Your task to perform on an android device: open app "Adobe Acrobat Reader: Edit PDF" (install if not already installed) Image 0: 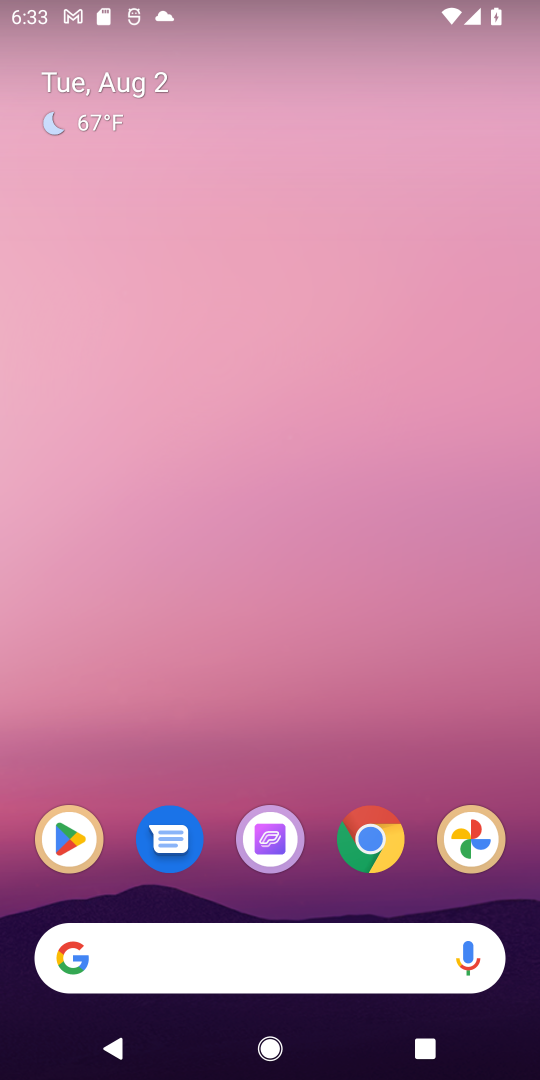
Step 0: click (61, 832)
Your task to perform on an android device: open app "Adobe Acrobat Reader: Edit PDF" (install if not already installed) Image 1: 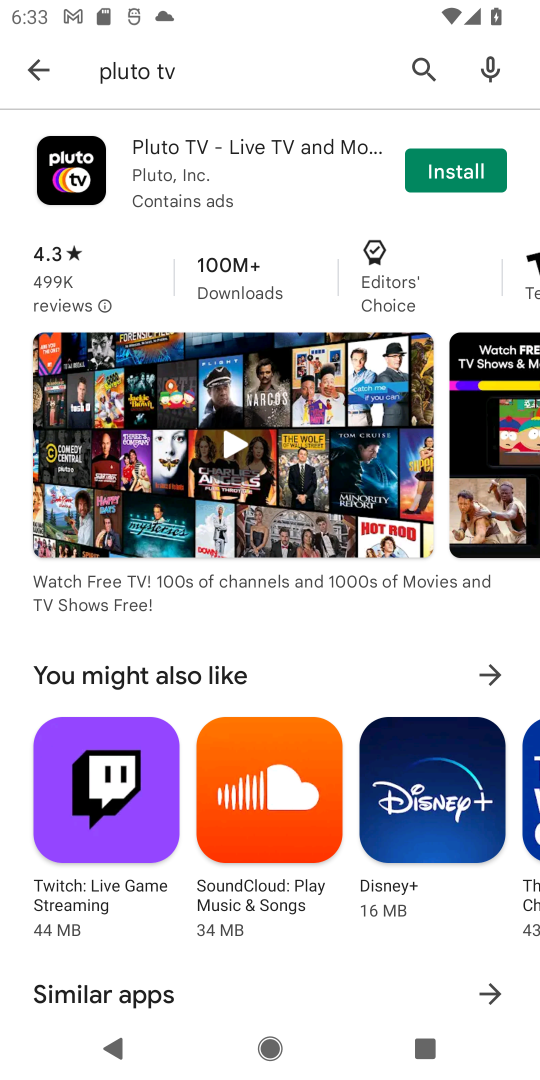
Step 1: click (202, 78)
Your task to perform on an android device: open app "Adobe Acrobat Reader: Edit PDF" (install if not already installed) Image 2: 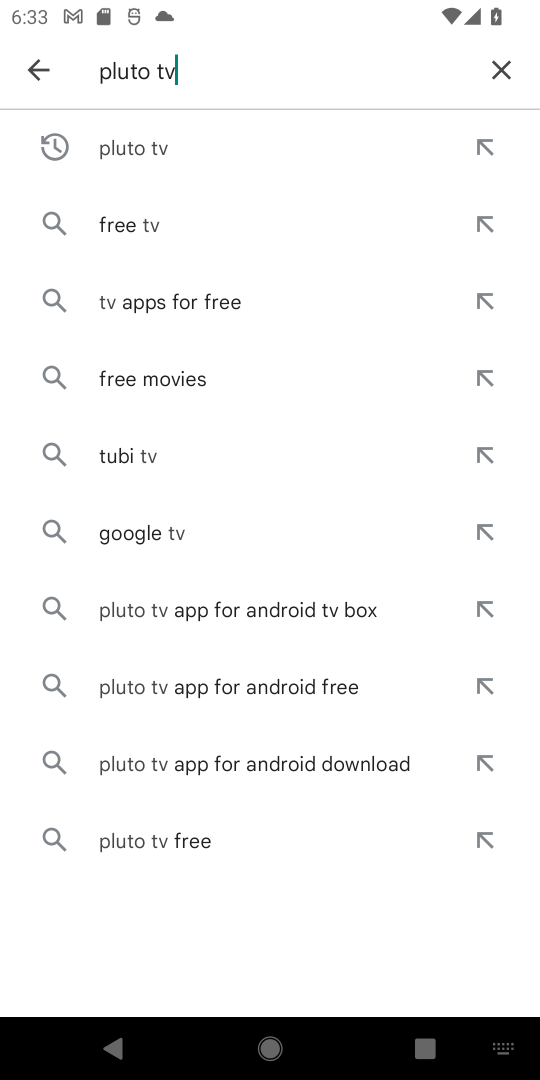
Step 2: click (502, 70)
Your task to perform on an android device: open app "Adobe Acrobat Reader: Edit PDF" (install if not already installed) Image 3: 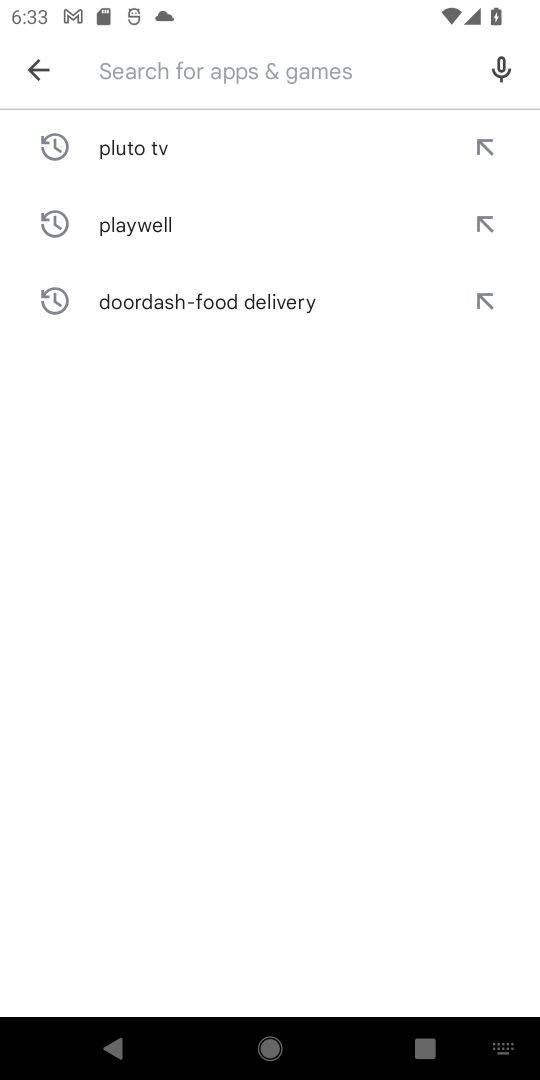
Step 3: type "Adobe Acrobar reader"
Your task to perform on an android device: open app "Adobe Acrobat Reader: Edit PDF" (install if not already installed) Image 4: 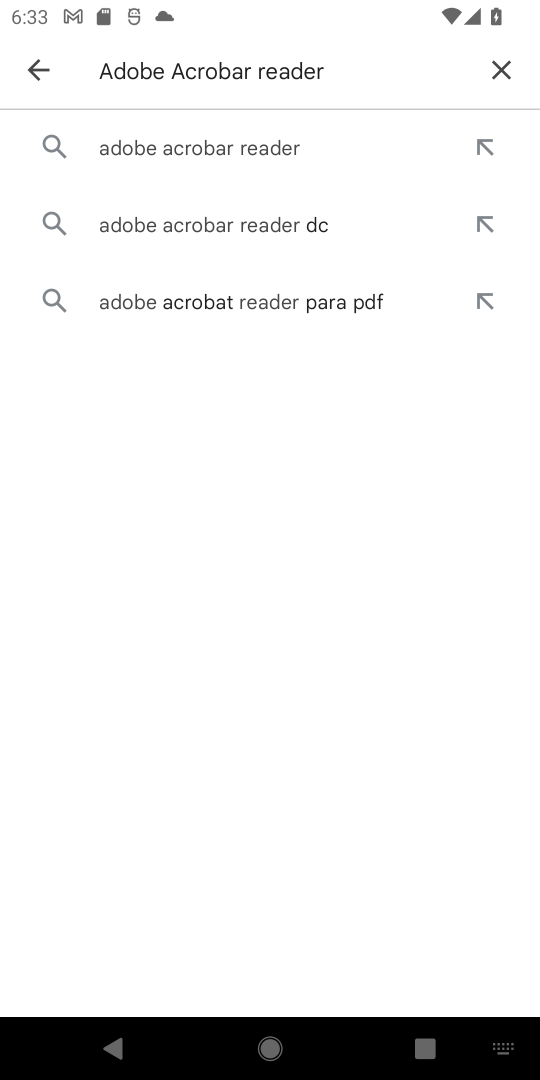
Step 4: click (260, 145)
Your task to perform on an android device: open app "Adobe Acrobat Reader: Edit PDF" (install if not already installed) Image 5: 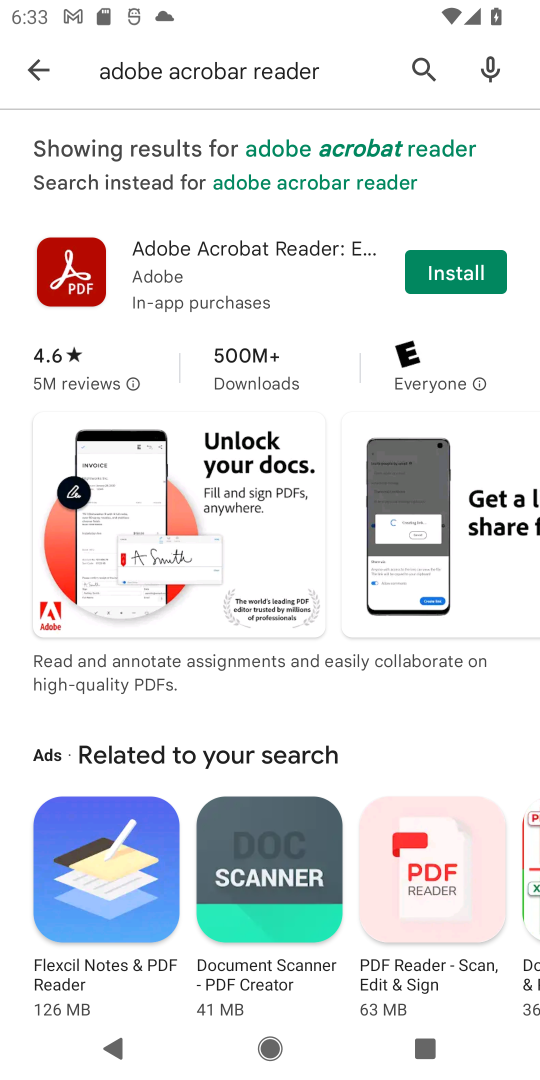
Step 5: click (447, 272)
Your task to perform on an android device: open app "Adobe Acrobat Reader: Edit PDF" (install if not already installed) Image 6: 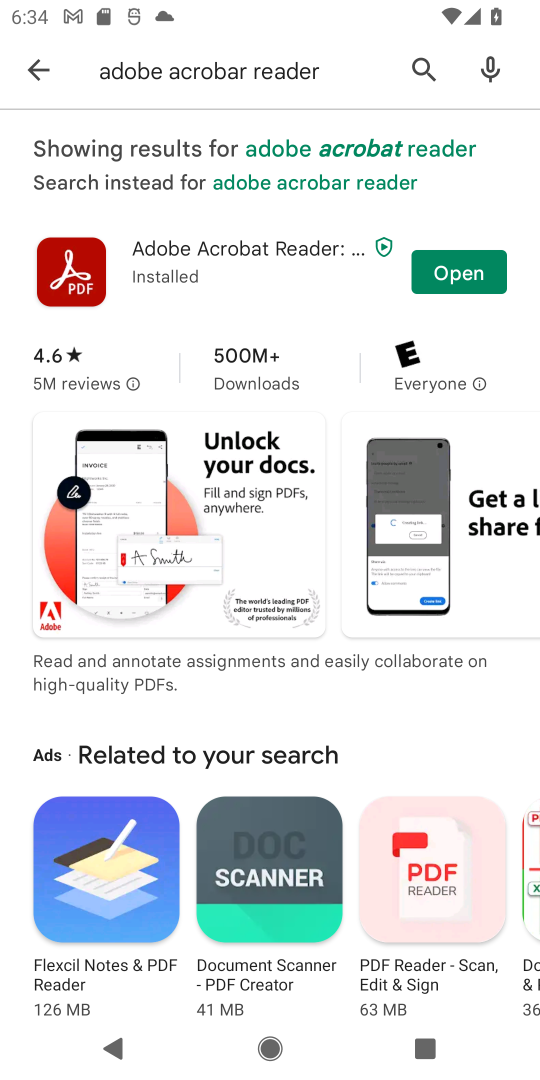
Step 6: click (474, 269)
Your task to perform on an android device: open app "Adobe Acrobat Reader: Edit PDF" (install if not already installed) Image 7: 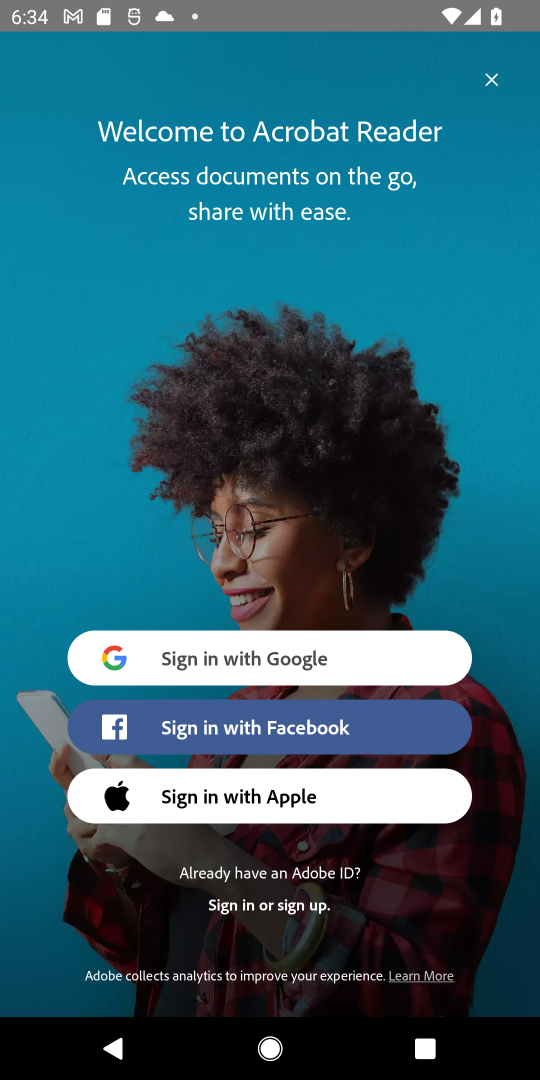
Step 7: click (341, 660)
Your task to perform on an android device: open app "Adobe Acrobat Reader: Edit PDF" (install if not already installed) Image 8: 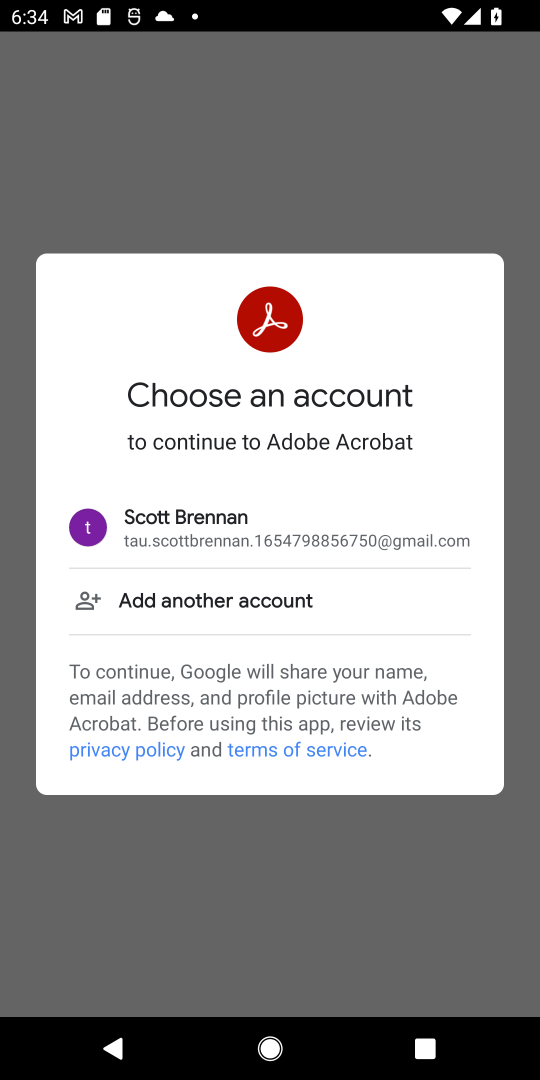
Step 8: click (247, 529)
Your task to perform on an android device: open app "Adobe Acrobat Reader: Edit PDF" (install if not already installed) Image 9: 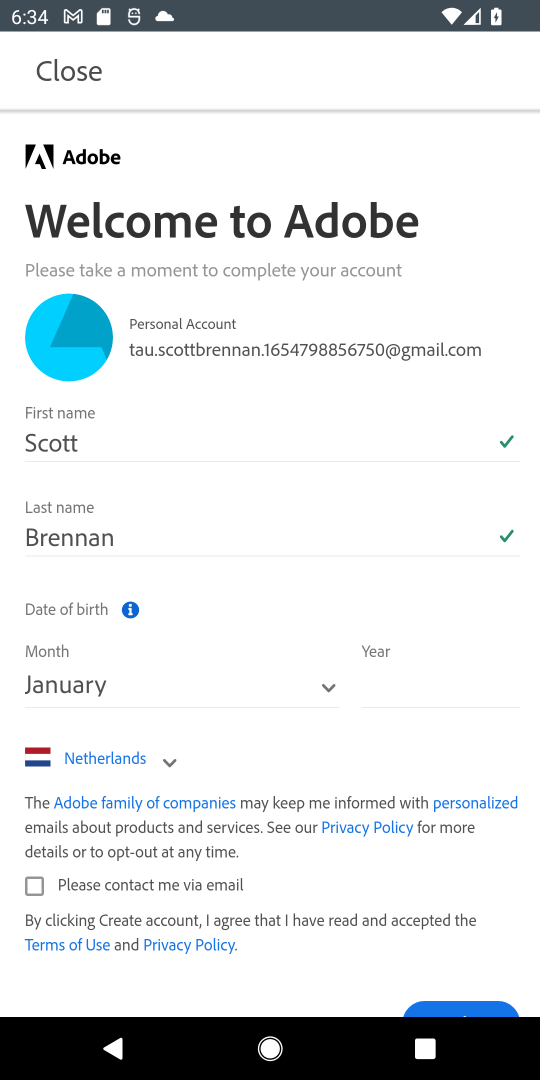
Step 9: click (323, 685)
Your task to perform on an android device: open app "Adobe Acrobat Reader: Edit PDF" (install if not already installed) Image 10: 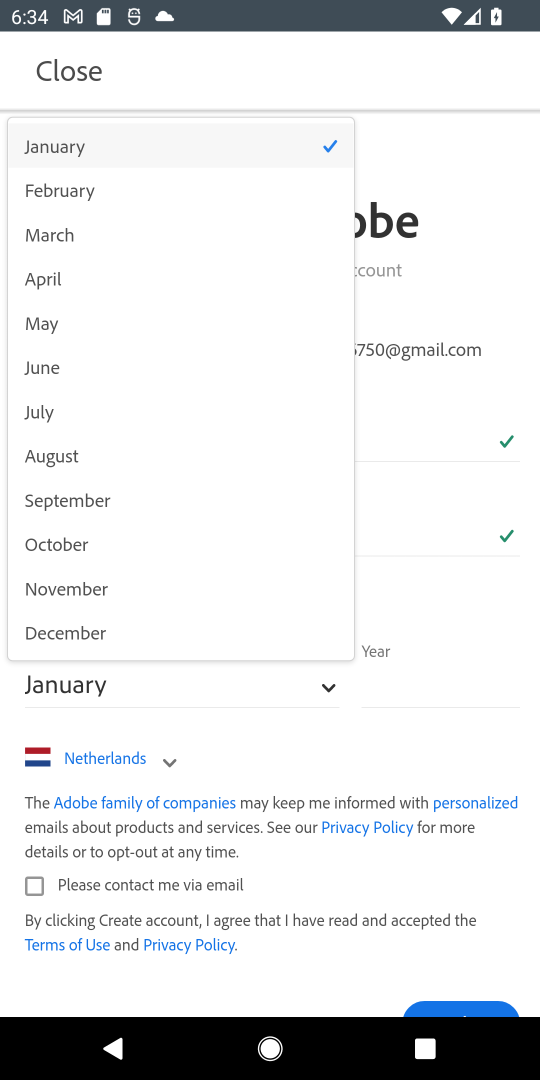
Step 10: click (98, 509)
Your task to perform on an android device: open app "Adobe Acrobat Reader: Edit PDF" (install if not already installed) Image 11: 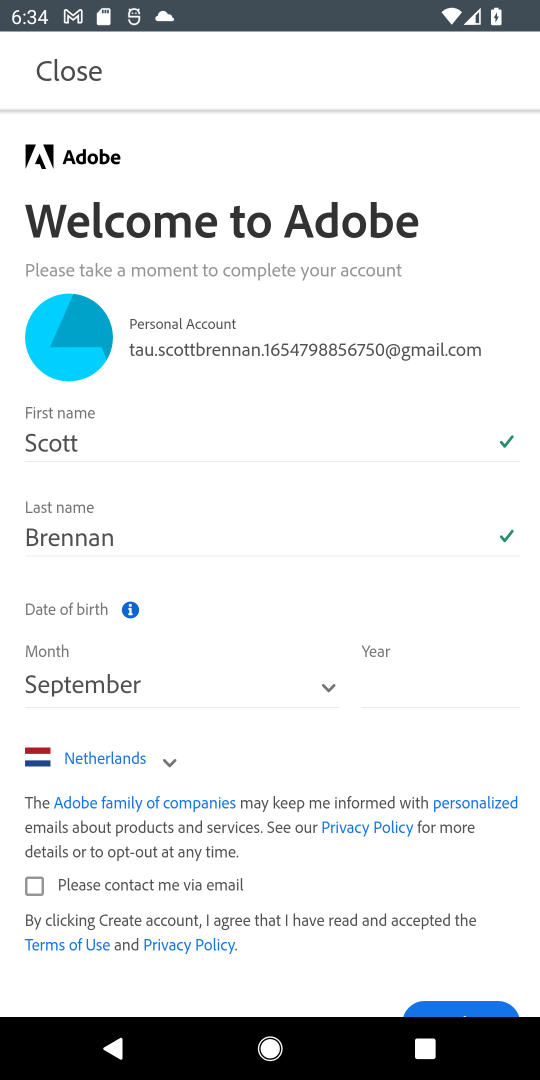
Step 11: click (409, 674)
Your task to perform on an android device: open app "Adobe Acrobat Reader: Edit PDF" (install if not already installed) Image 12: 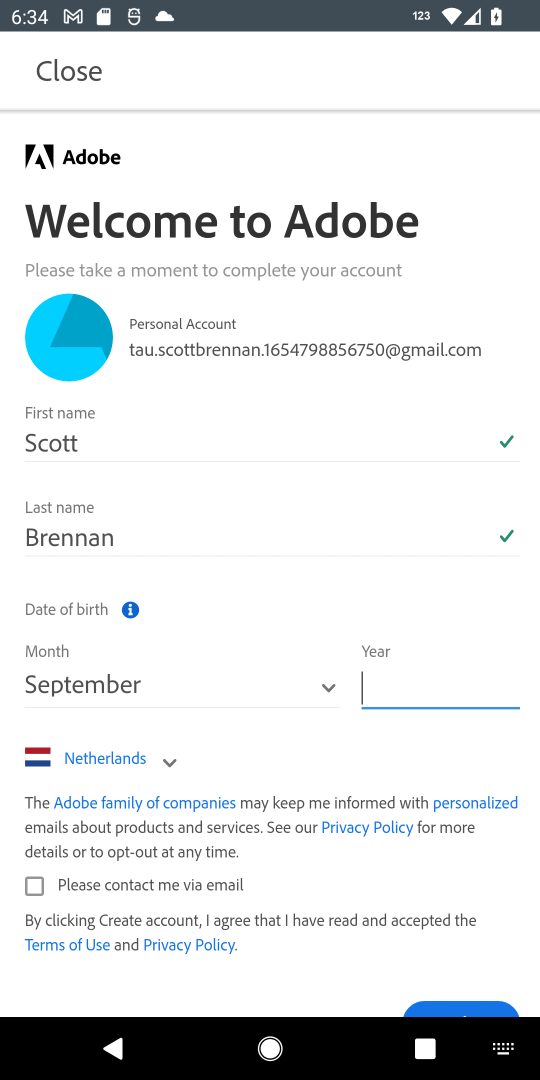
Step 12: type "1998"
Your task to perform on an android device: open app "Adobe Acrobat Reader: Edit PDF" (install if not already installed) Image 13: 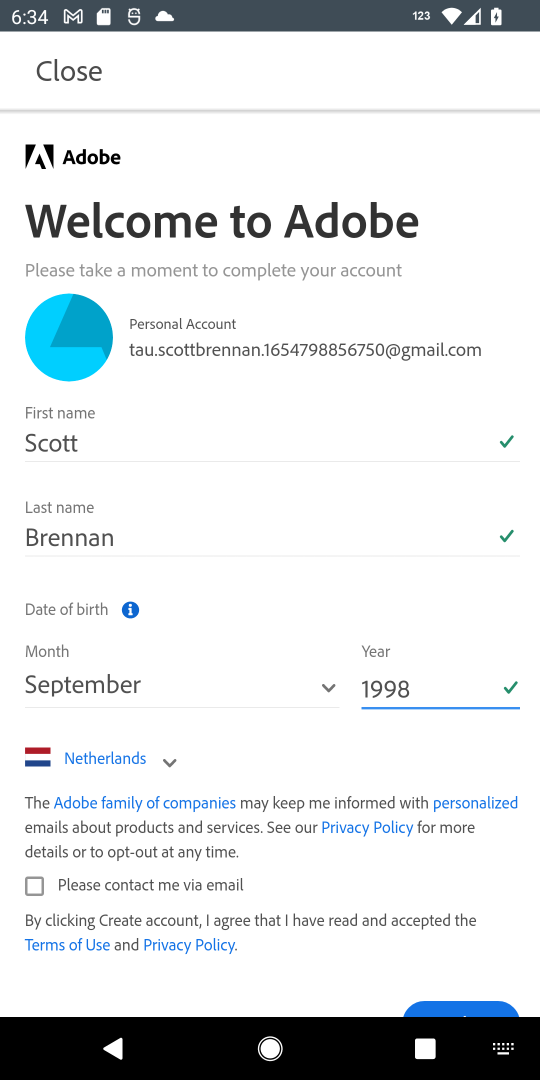
Step 13: drag from (387, 725) to (380, 605)
Your task to perform on an android device: open app "Adobe Acrobat Reader: Edit PDF" (install if not already installed) Image 14: 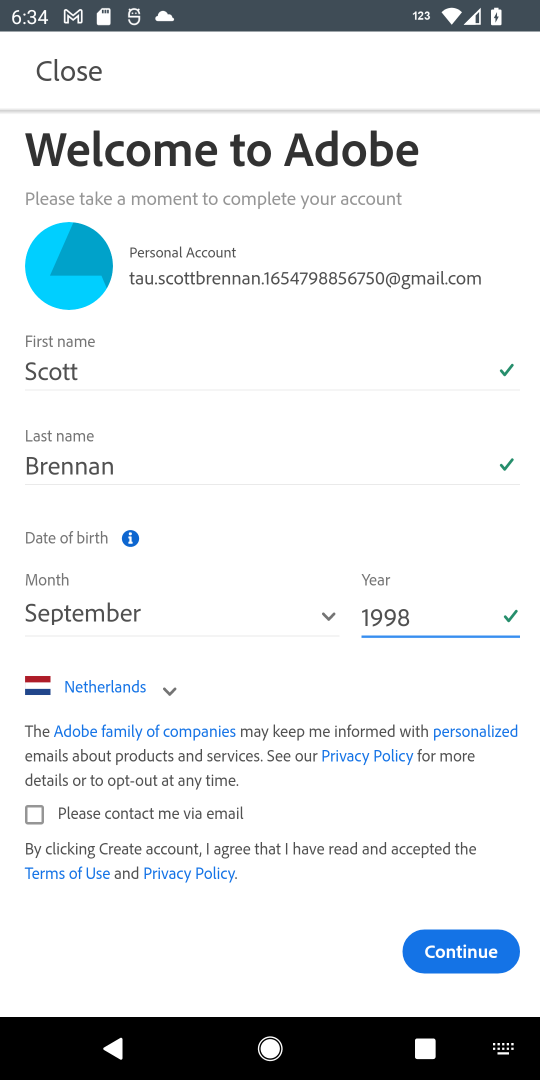
Step 14: click (30, 810)
Your task to perform on an android device: open app "Adobe Acrobat Reader: Edit PDF" (install if not already installed) Image 15: 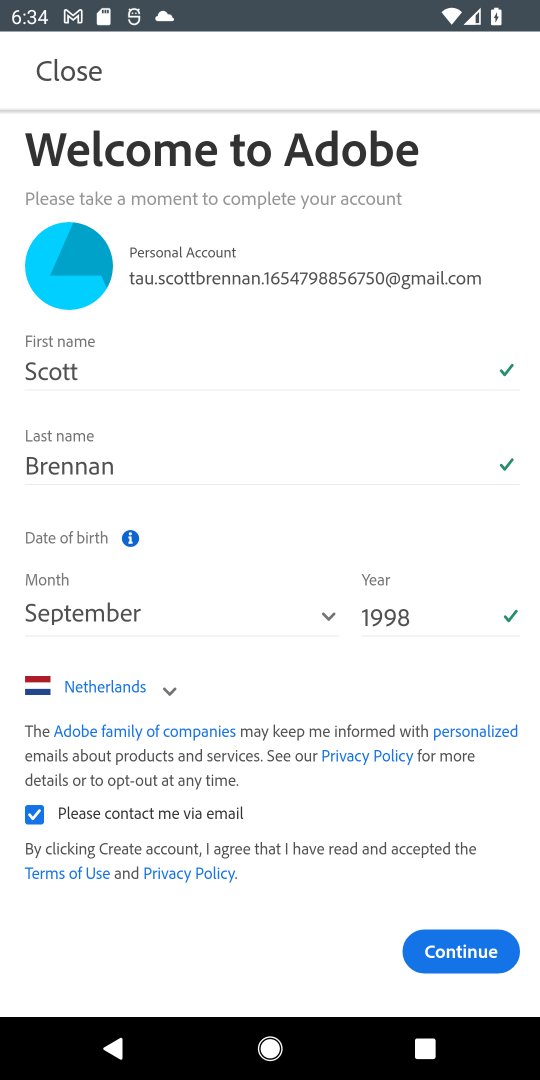
Step 15: click (462, 944)
Your task to perform on an android device: open app "Adobe Acrobat Reader: Edit PDF" (install if not already installed) Image 16: 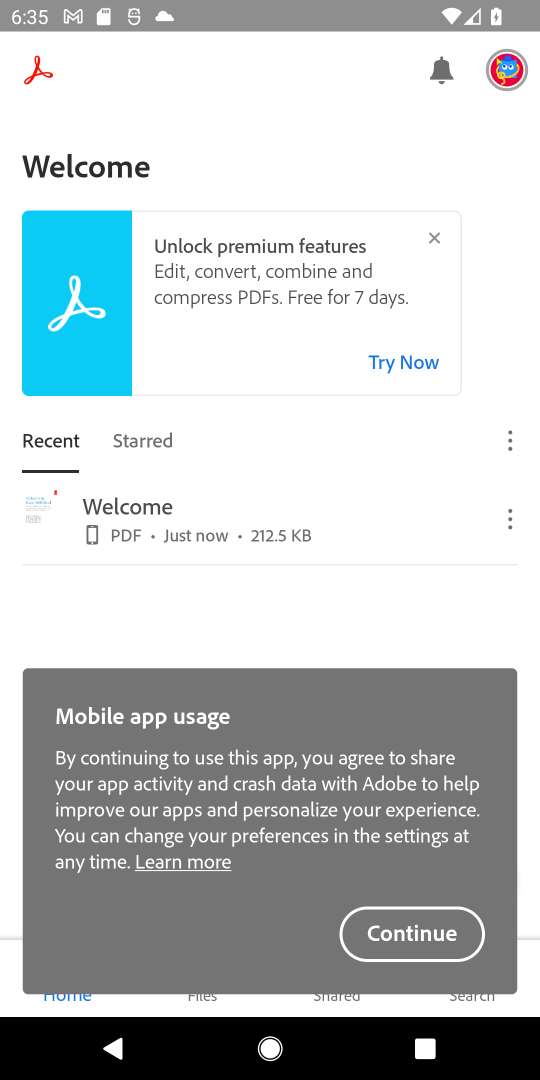
Step 16: task complete